Your task to perform on an android device: What's the news in Laos? Image 0: 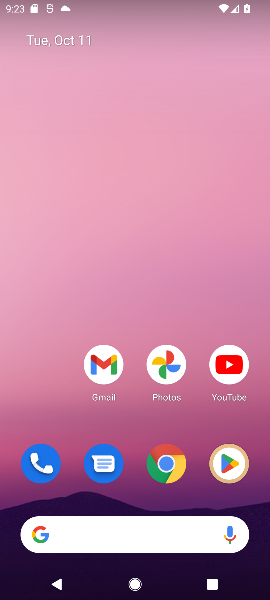
Step 0: drag from (120, 522) to (121, 215)
Your task to perform on an android device: What's the news in Laos? Image 1: 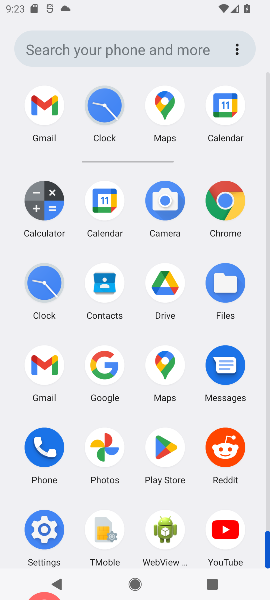
Step 1: click (98, 359)
Your task to perform on an android device: What's the news in Laos? Image 2: 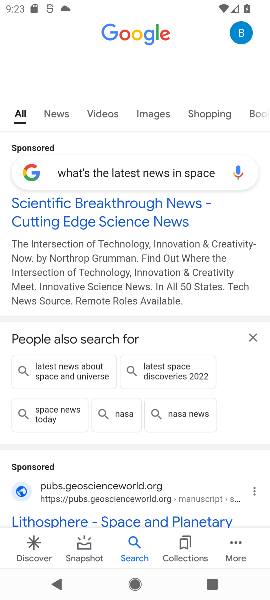
Step 2: click (182, 169)
Your task to perform on an android device: What's the news in Laos? Image 3: 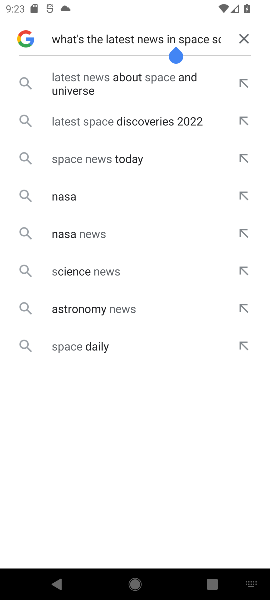
Step 3: click (249, 36)
Your task to perform on an android device: What's the news in Laos? Image 4: 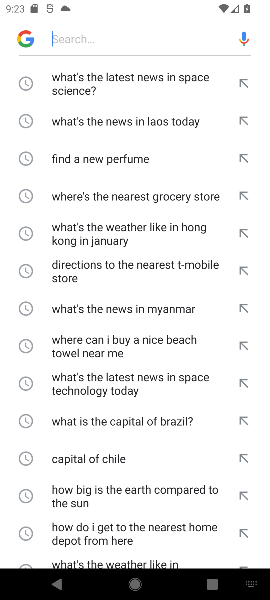
Step 4: click (111, 20)
Your task to perform on an android device: What's the news in Laos? Image 5: 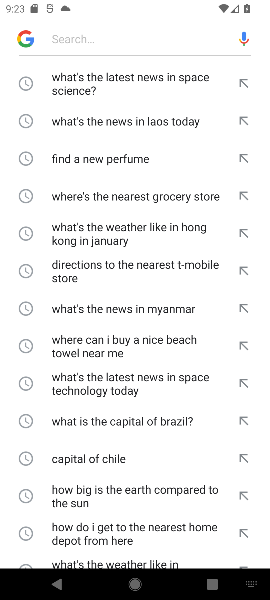
Step 5: type "What's the news in Laos "
Your task to perform on an android device: What's the news in Laos? Image 6: 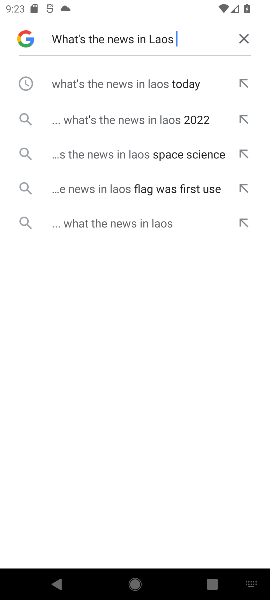
Step 6: click (112, 84)
Your task to perform on an android device: What's the news in Laos? Image 7: 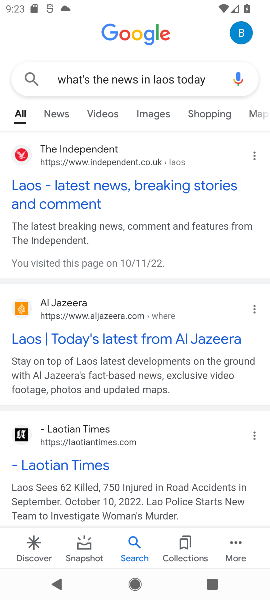
Step 7: click (81, 150)
Your task to perform on an android device: What's the news in Laos? Image 8: 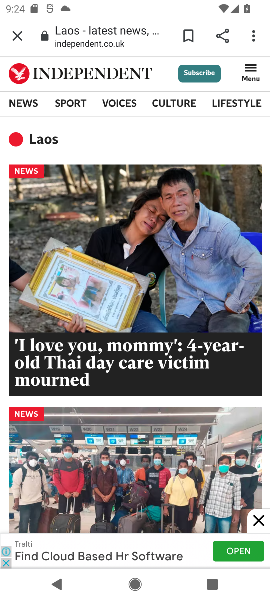
Step 8: task complete